Your task to perform on an android device: change the clock display to analog Image 0: 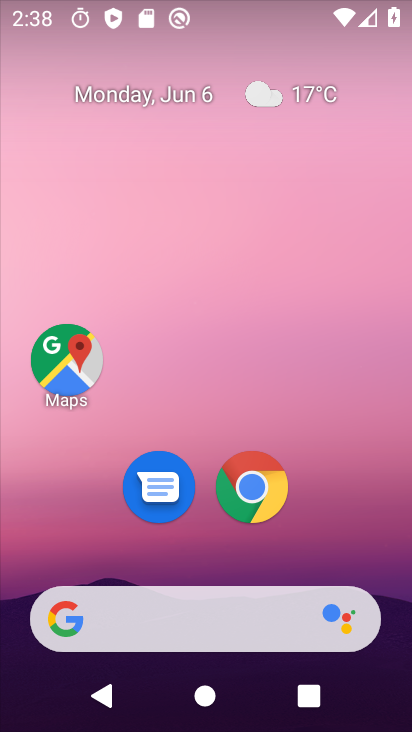
Step 0: drag from (166, 136) to (172, 101)
Your task to perform on an android device: change the clock display to analog Image 1: 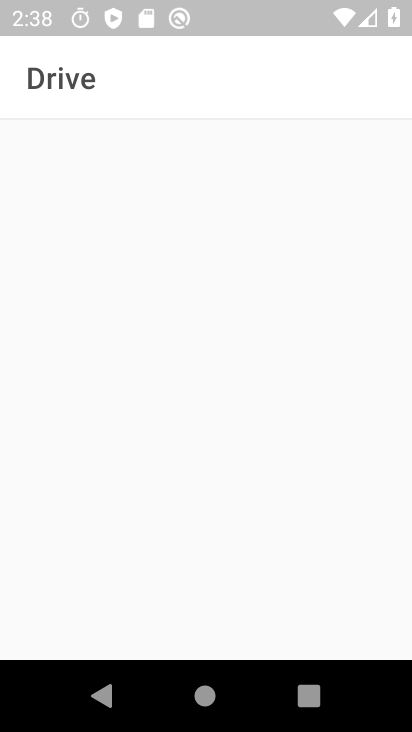
Step 1: press home button
Your task to perform on an android device: change the clock display to analog Image 2: 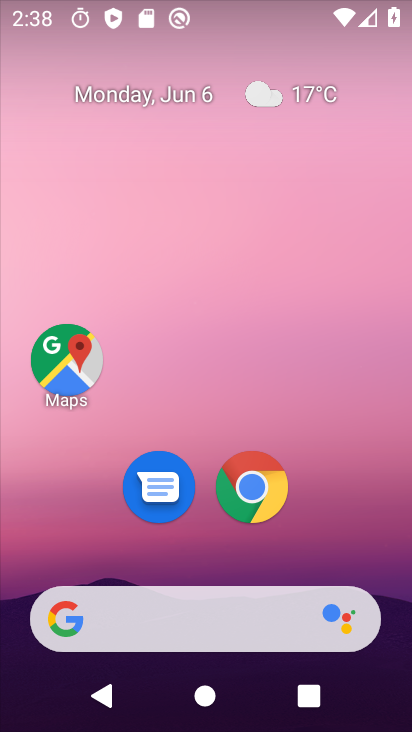
Step 2: drag from (317, 570) to (382, 104)
Your task to perform on an android device: change the clock display to analog Image 3: 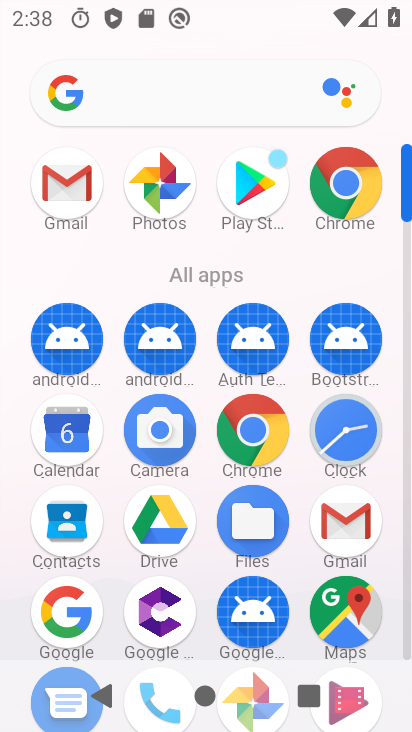
Step 3: click (348, 433)
Your task to perform on an android device: change the clock display to analog Image 4: 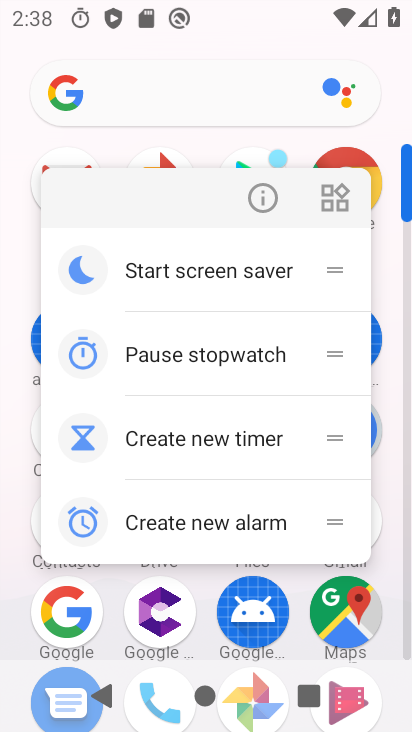
Step 4: click (372, 425)
Your task to perform on an android device: change the clock display to analog Image 5: 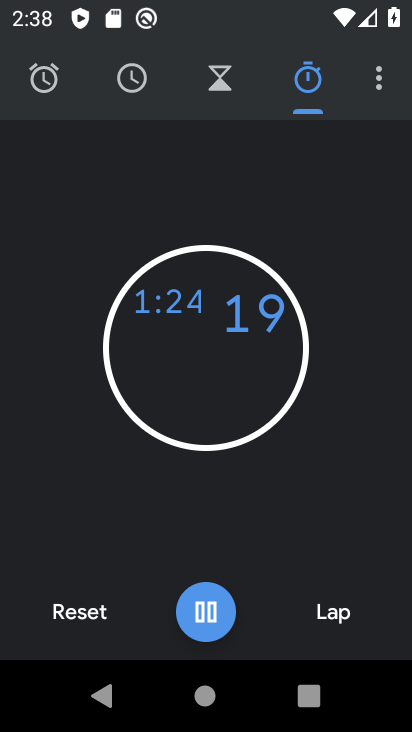
Step 5: click (381, 82)
Your task to perform on an android device: change the clock display to analog Image 6: 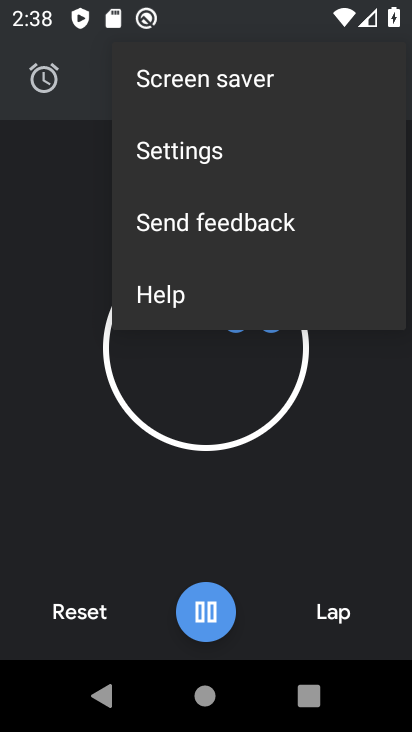
Step 6: click (263, 151)
Your task to perform on an android device: change the clock display to analog Image 7: 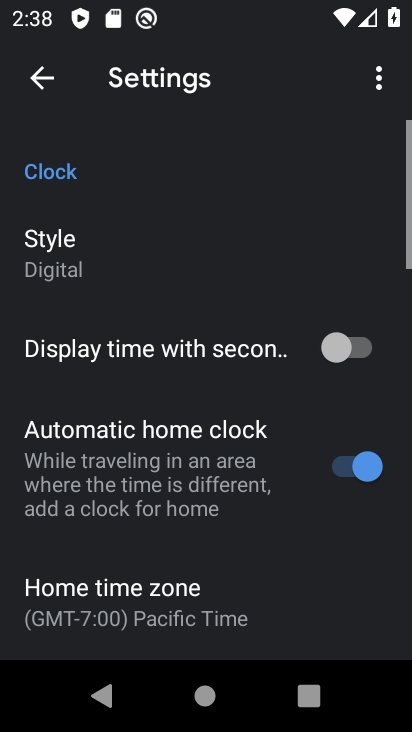
Step 7: click (167, 231)
Your task to perform on an android device: change the clock display to analog Image 8: 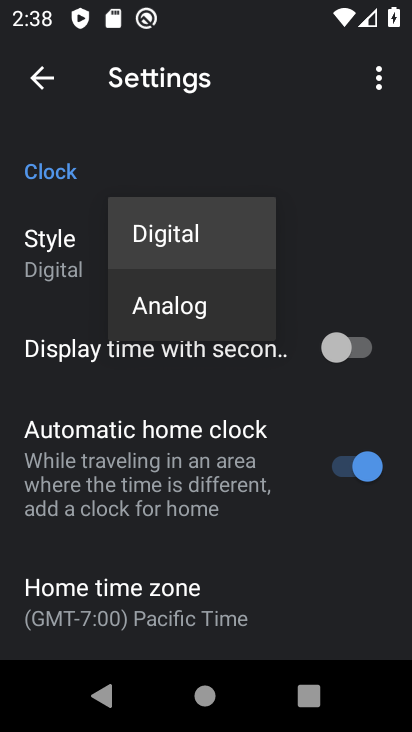
Step 8: click (192, 311)
Your task to perform on an android device: change the clock display to analog Image 9: 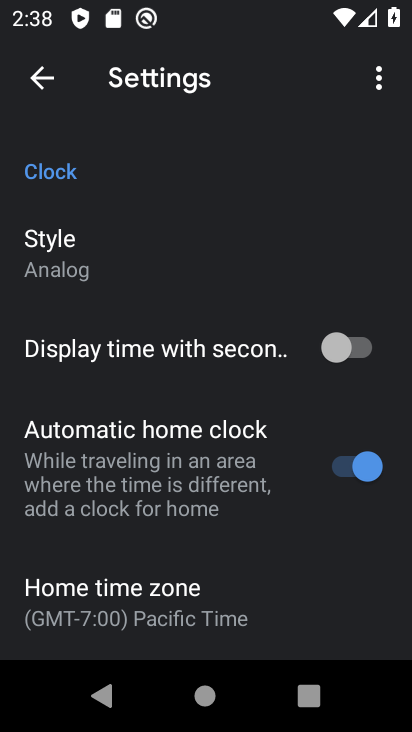
Step 9: task complete